Your task to perform on an android device: allow notifications from all sites in the chrome app Image 0: 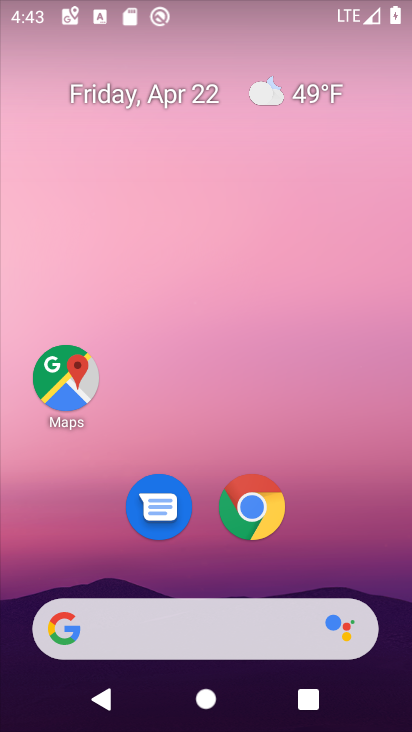
Step 0: click (251, 504)
Your task to perform on an android device: allow notifications from all sites in the chrome app Image 1: 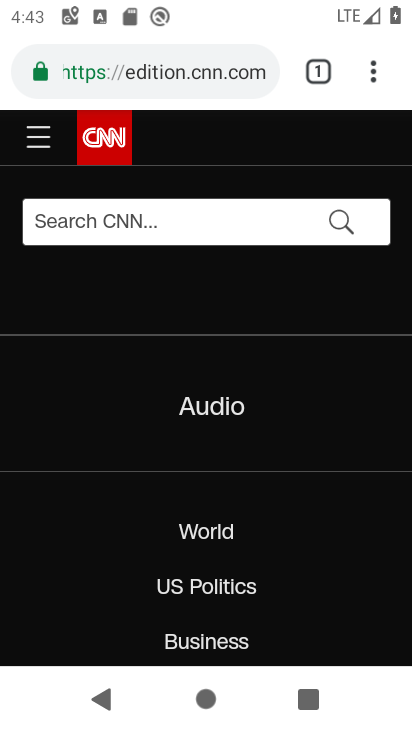
Step 1: click (368, 67)
Your task to perform on an android device: allow notifications from all sites in the chrome app Image 2: 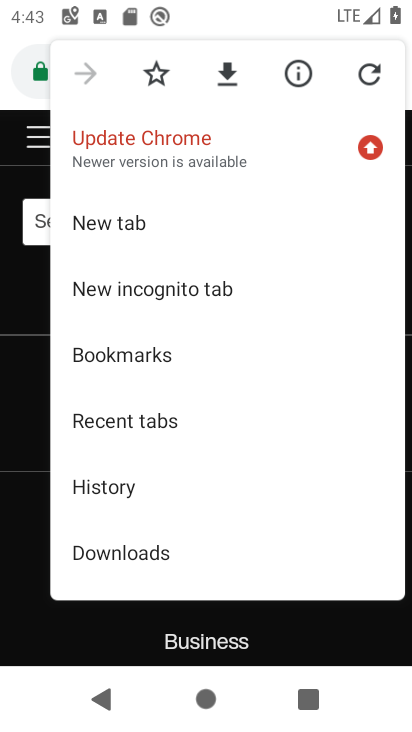
Step 2: click (129, 480)
Your task to perform on an android device: allow notifications from all sites in the chrome app Image 3: 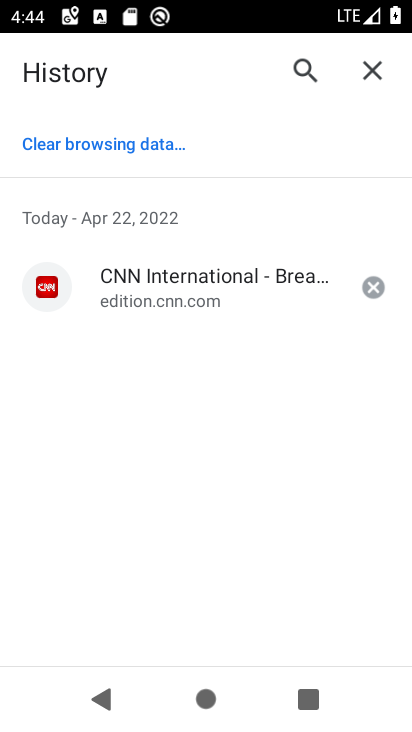
Step 3: press back button
Your task to perform on an android device: allow notifications from all sites in the chrome app Image 4: 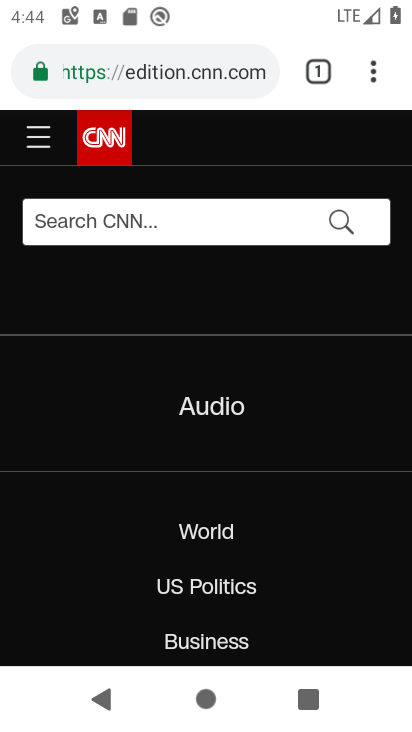
Step 4: click (368, 72)
Your task to perform on an android device: allow notifications from all sites in the chrome app Image 5: 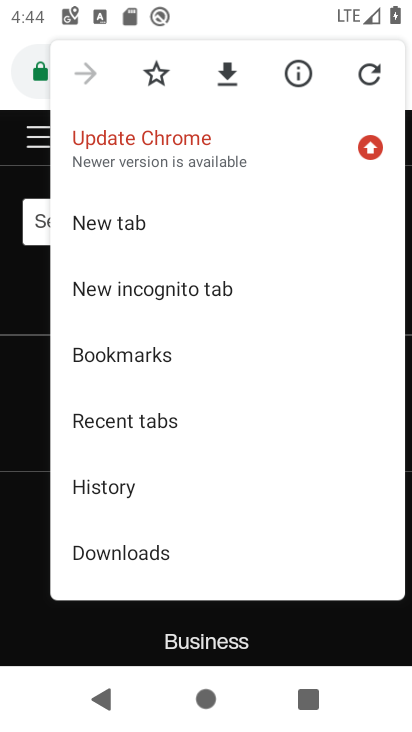
Step 5: drag from (160, 493) to (264, 163)
Your task to perform on an android device: allow notifications from all sites in the chrome app Image 6: 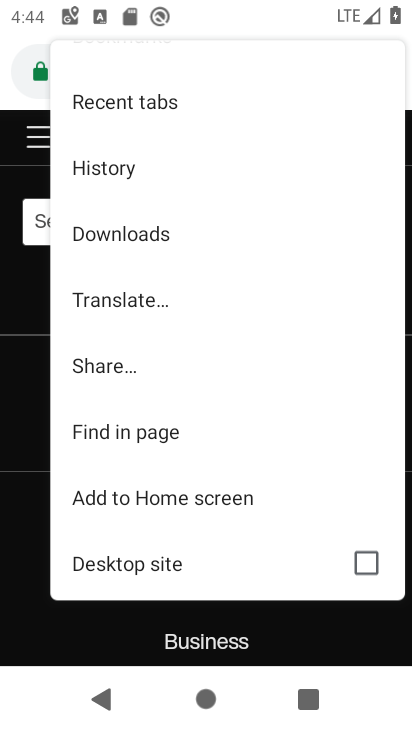
Step 6: drag from (278, 529) to (252, 159)
Your task to perform on an android device: allow notifications from all sites in the chrome app Image 7: 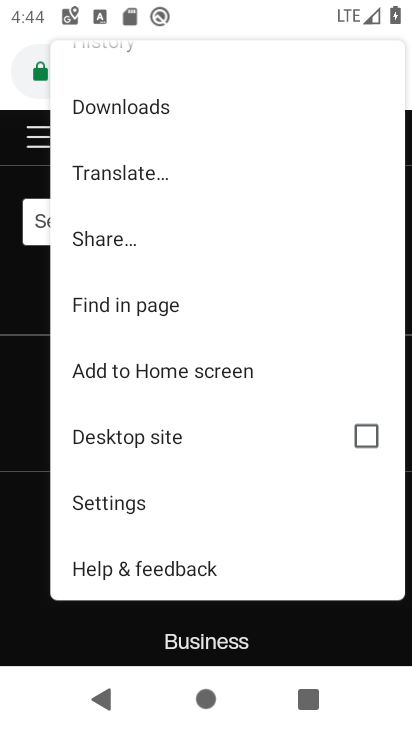
Step 7: click (112, 497)
Your task to perform on an android device: allow notifications from all sites in the chrome app Image 8: 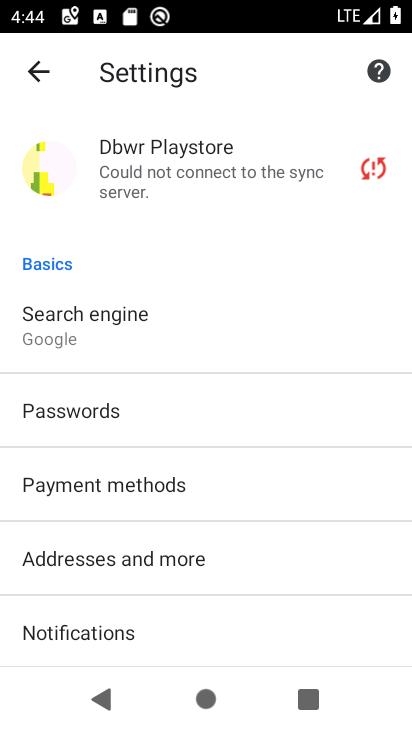
Step 8: drag from (258, 563) to (185, 171)
Your task to perform on an android device: allow notifications from all sites in the chrome app Image 9: 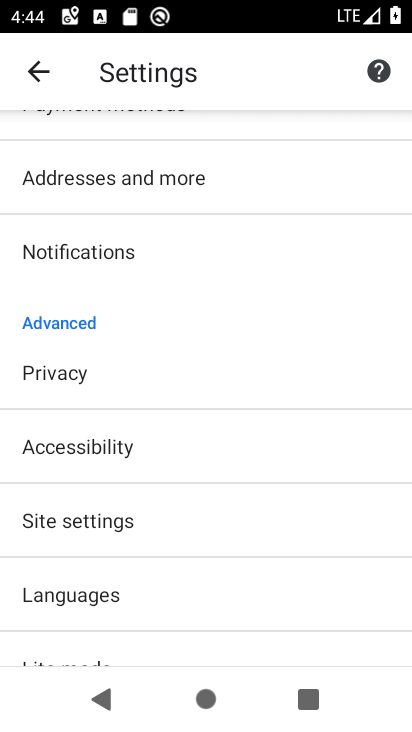
Step 9: click (52, 521)
Your task to perform on an android device: allow notifications from all sites in the chrome app Image 10: 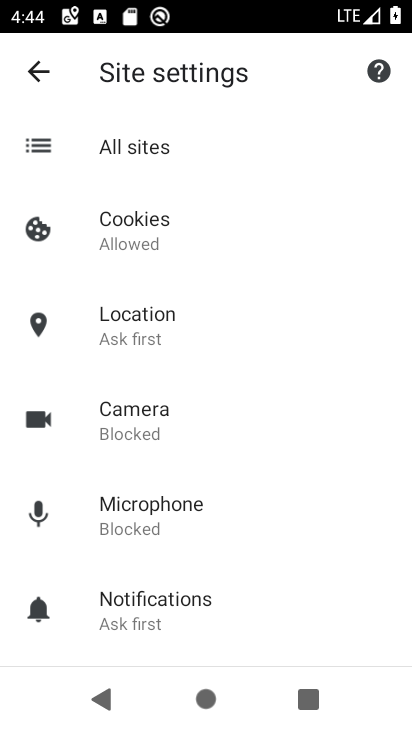
Step 10: click (160, 599)
Your task to perform on an android device: allow notifications from all sites in the chrome app Image 11: 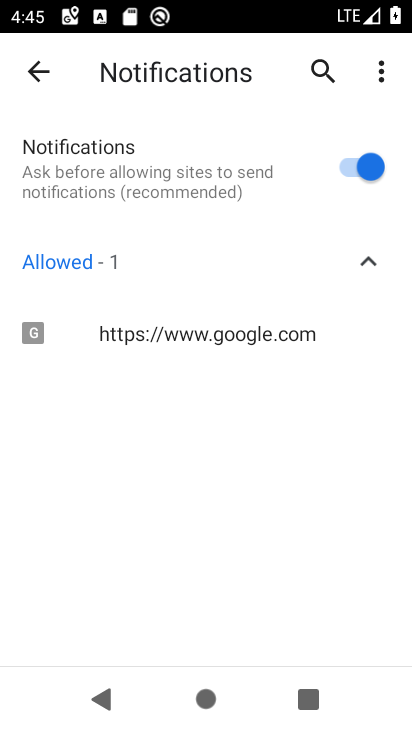
Step 11: task complete